Your task to perform on an android device: find photos in the google photos app Image 0: 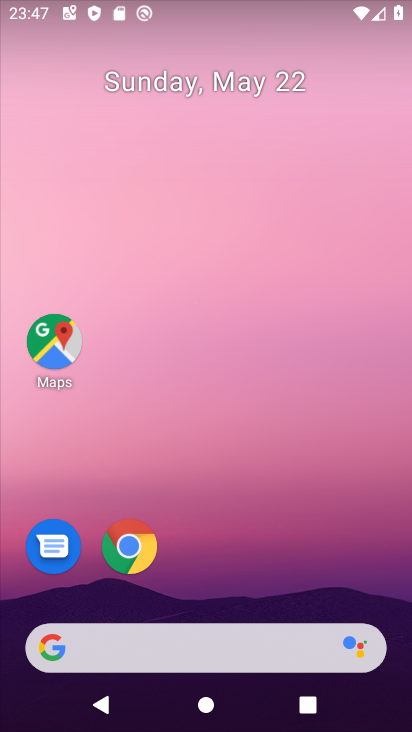
Step 0: drag from (202, 562) to (219, 127)
Your task to perform on an android device: find photos in the google photos app Image 1: 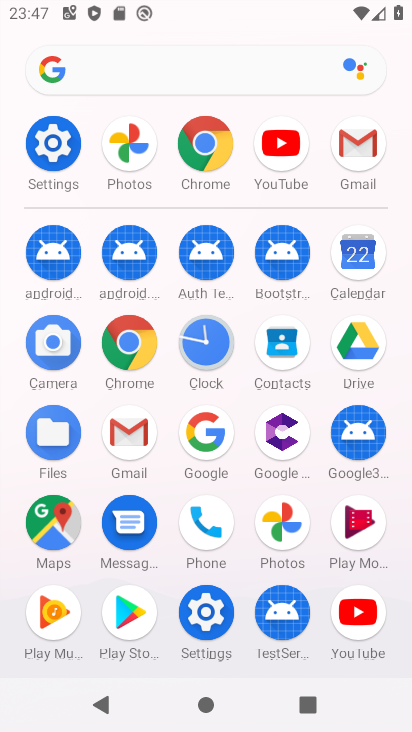
Step 1: drag from (253, 639) to (253, 77)
Your task to perform on an android device: find photos in the google photos app Image 2: 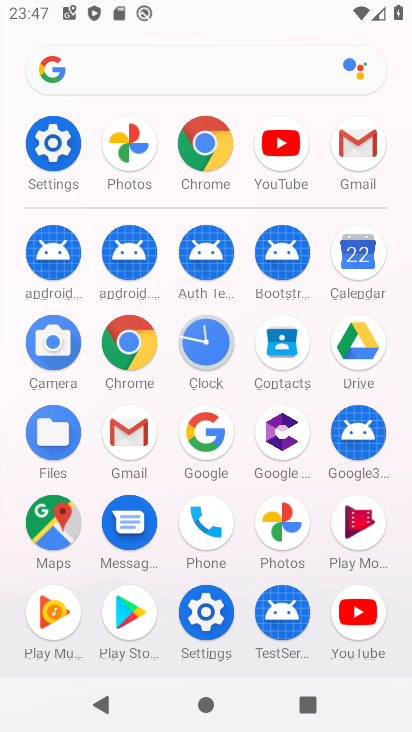
Step 2: drag from (245, 622) to (215, 134)
Your task to perform on an android device: find photos in the google photos app Image 3: 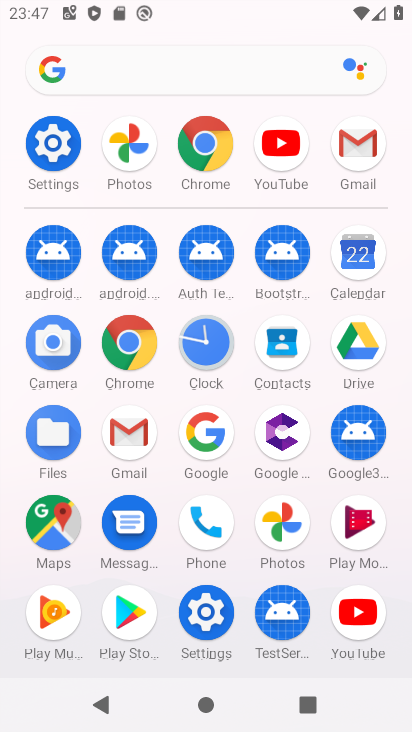
Step 3: drag from (232, 664) to (245, 133)
Your task to perform on an android device: find photos in the google photos app Image 4: 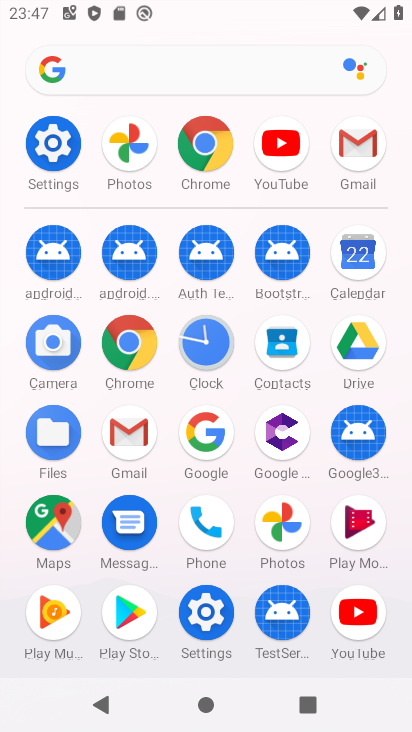
Step 4: drag from (253, 604) to (239, 250)
Your task to perform on an android device: find photos in the google photos app Image 5: 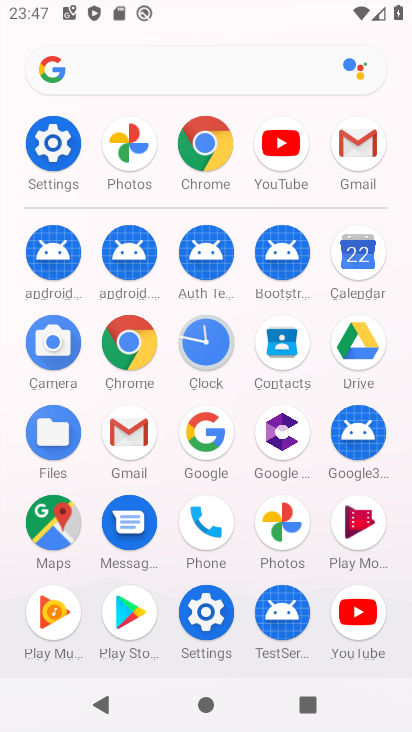
Step 5: click (283, 528)
Your task to perform on an android device: find photos in the google photos app Image 6: 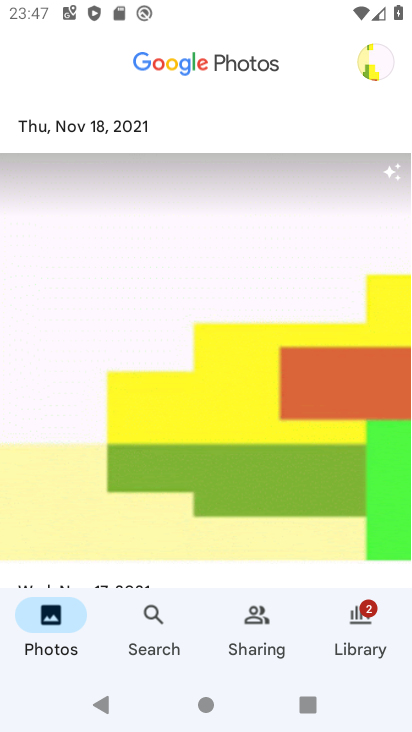
Step 6: drag from (293, 562) to (279, 36)
Your task to perform on an android device: find photos in the google photos app Image 7: 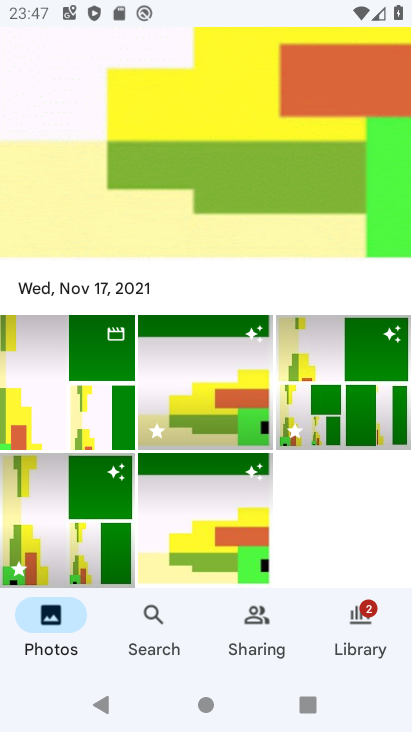
Step 7: drag from (305, 513) to (297, 301)
Your task to perform on an android device: find photos in the google photos app Image 8: 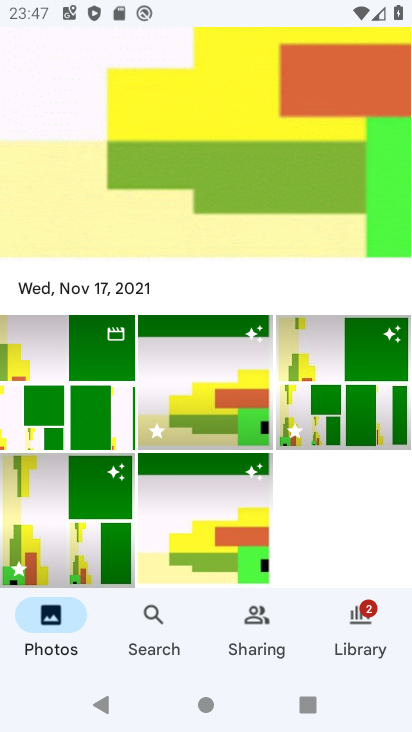
Step 8: drag from (301, 563) to (264, 222)
Your task to perform on an android device: find photos in the google photos app Image 9: 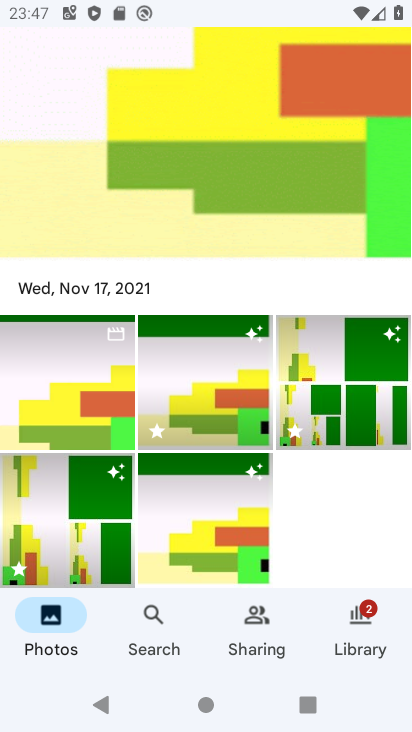
Step 9: click (338, 625)
Your task to perform on an android device: find photos in the google photos app Image 10: 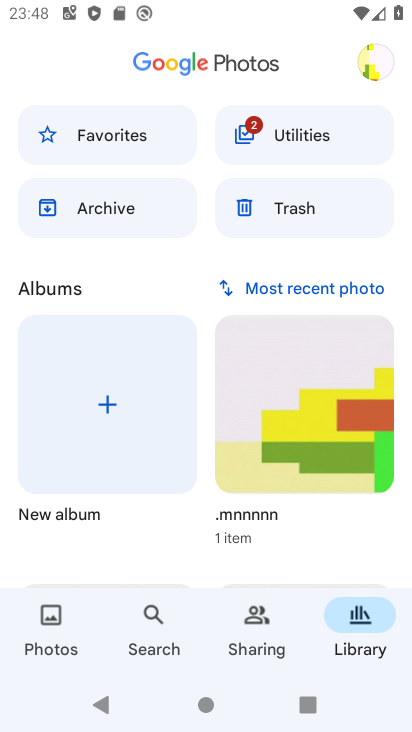
Step 10: click (36, 621)
Your task to perform on an android device: find photos in the google photos app Image 11: 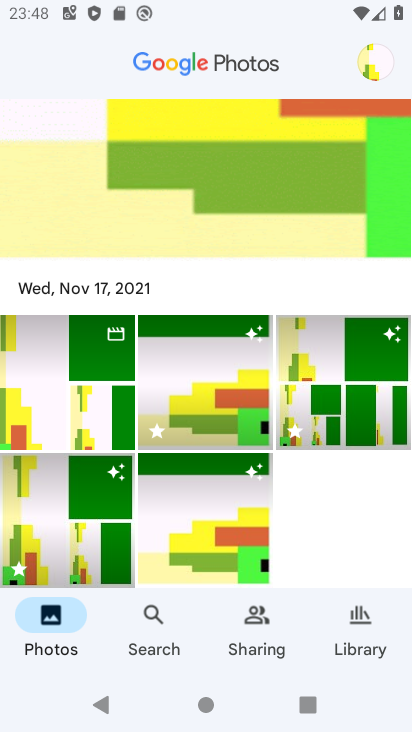
Step 11: click (261, 381)
Your task to perform on an android device: find photos in the google photos app Image 12: 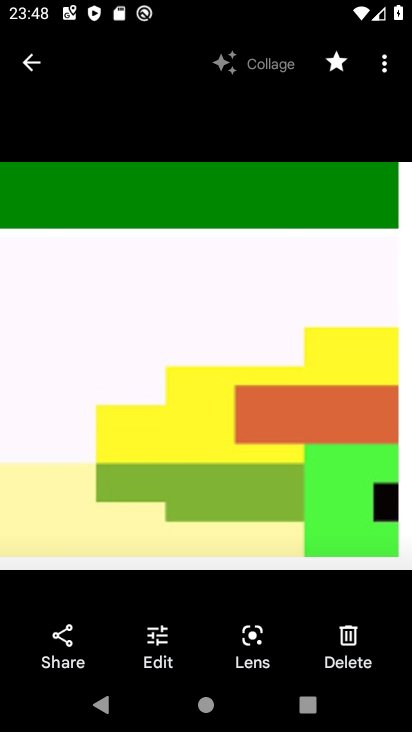
Step 12: task complete